Your task to perform on an android device: toggle airplane mode Image 0: 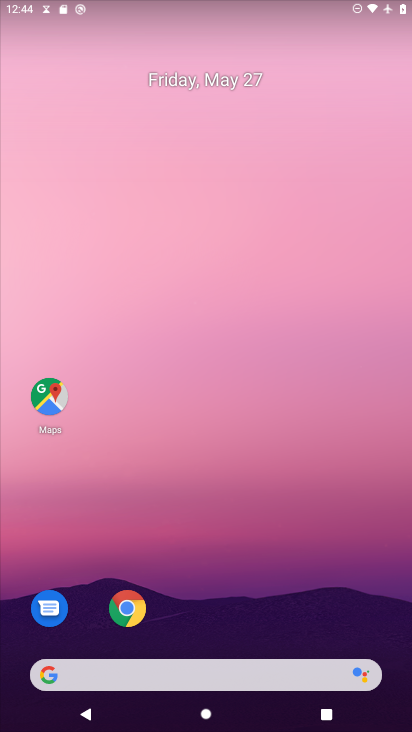
Step 0: press home button
Your task to perform on an android device: toggle airplane mode Image 1: 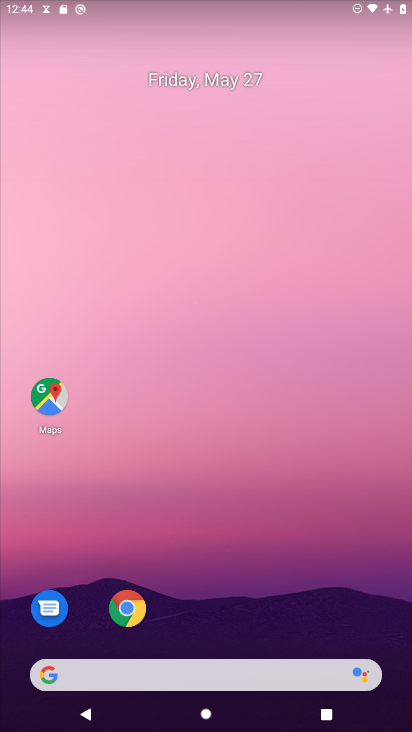
Step 1: drag from (235, 405) to (307, 92)
Your task to perform on an android device: toggle airplane mode Image 2: 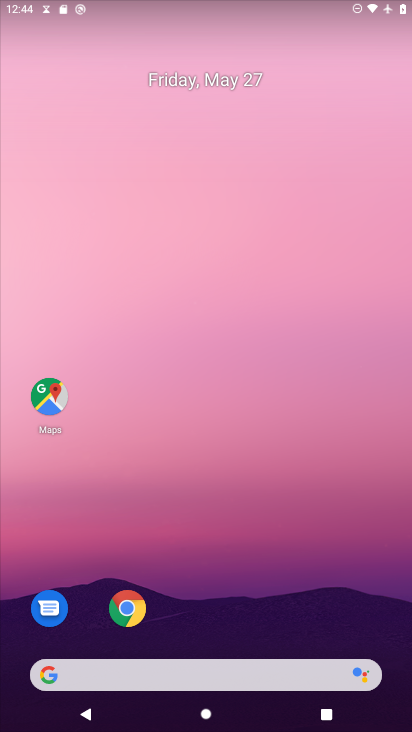
Step 2: drag from (219, 668) to (391, 64)
Your task to perform on an android device: toggle airplane mode Image 3: 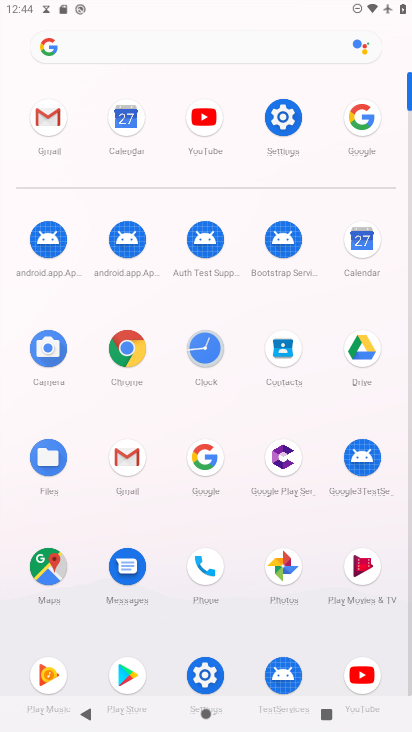
Step 3: click (291, 112)
Your task to perform on an android device: toggle airplane mode Image 4: 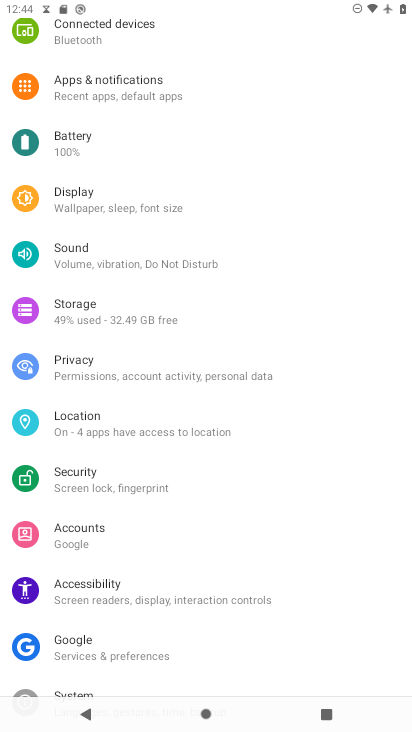
Step 4: drag from (300, 127) to (211, 590)
Your task to perform on an android device: toggle airplane mode Image 5: 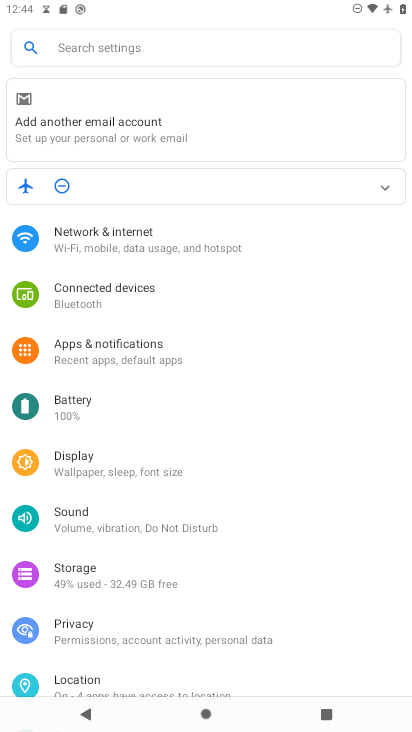
Step 5: click (139, 238)
Your task to perform on an android device: toggle airplane mode Image 6: 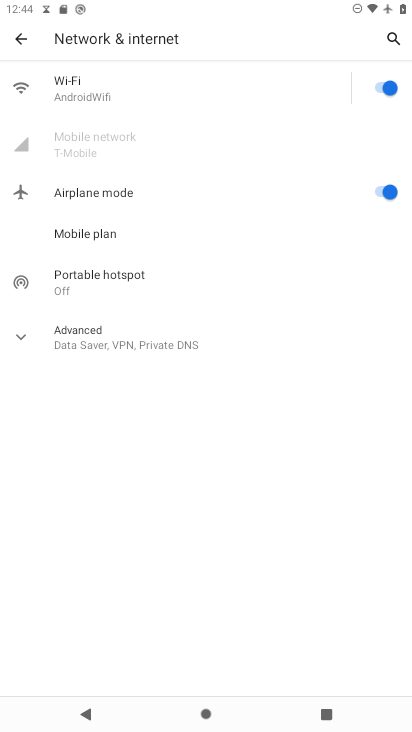
Step 6: click (381, 190)
Your task to perform on an android device: toggle airplane mode Image 7: 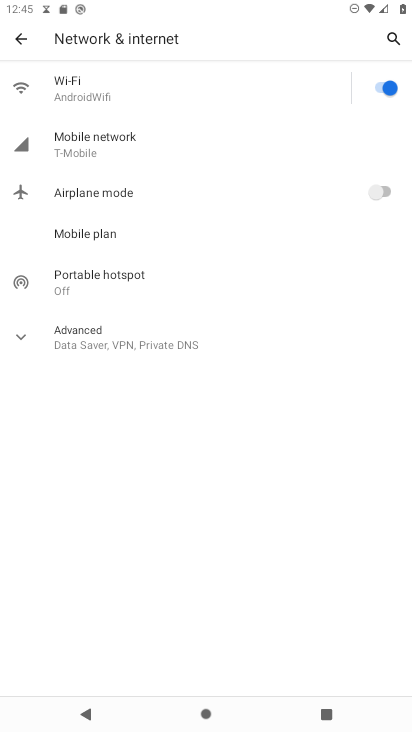
Step 7: task complete